Your task to perform on an android device: Go to privacy settings Image 0: 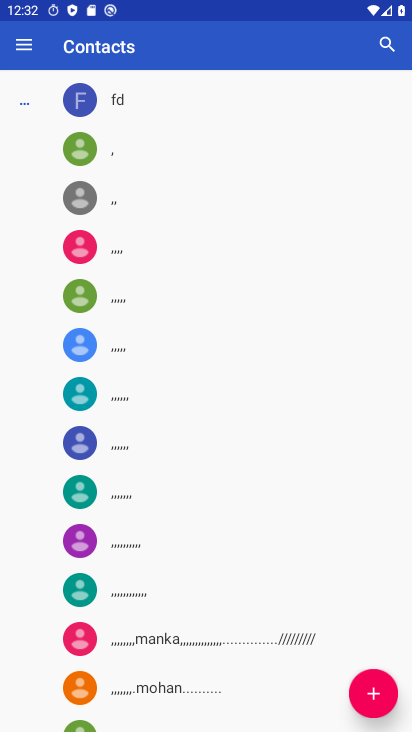
Step 0: press back button
Your task to perform on an android device: Go to privacy settings Image 1: 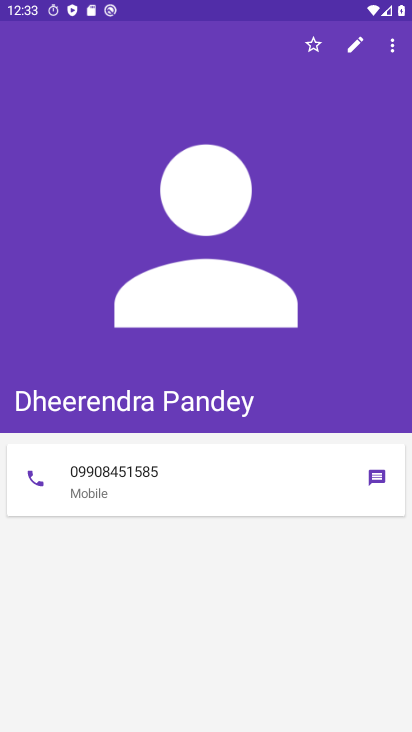
Step 1: press back button
Your task to perform on an android device: Go to privacy settings Image 2: 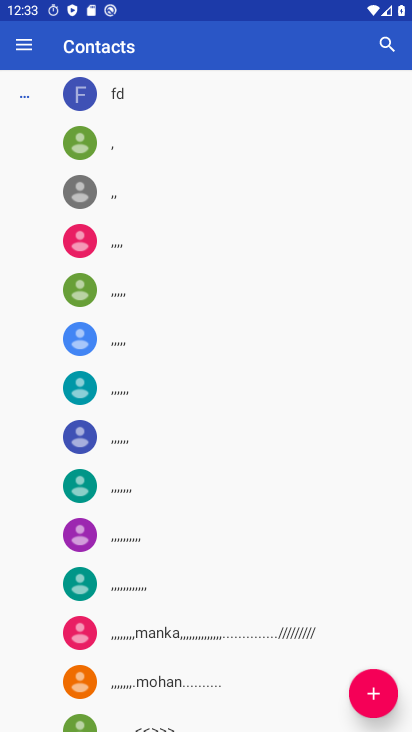
Step 2: press back button
Your task to perform on an android device: Go to privacy settings Image 3: 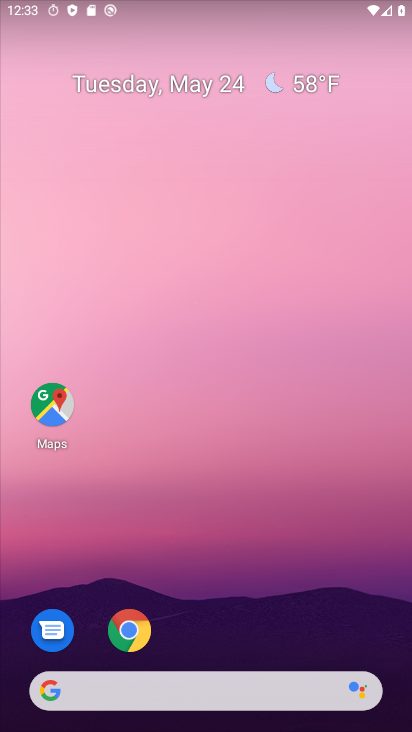
Step 3: drag from (257, 634) to (261, 120)
Your task to perform on an android device: Go to privacy settings Image 4: 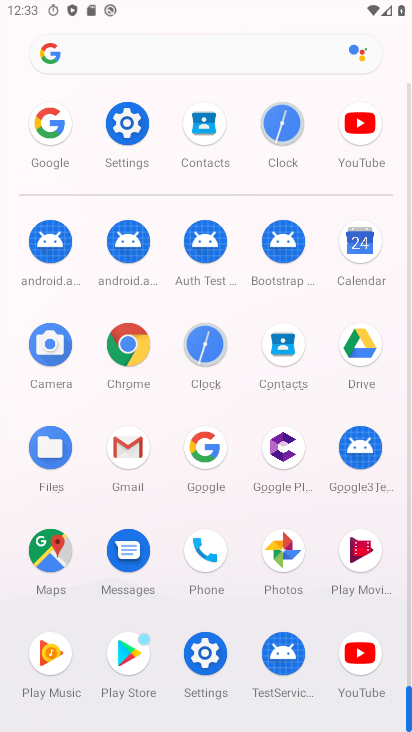
Step 4: click (128, 125)
Your task to perform on an android device: Go to privacy settings Image 5: 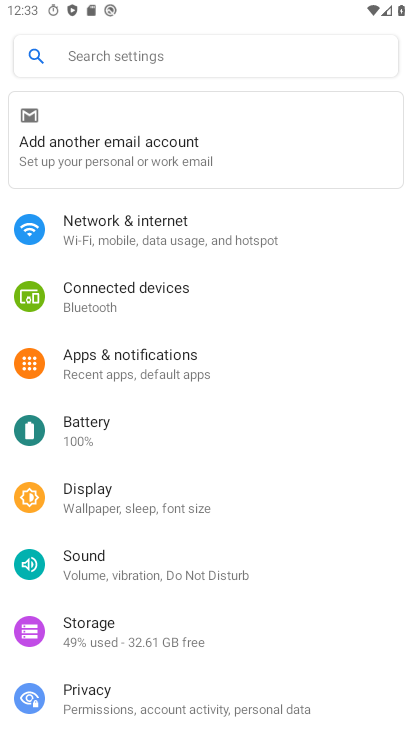
Step 5: drag from (155, 520) to (205, 431)
Your task to perform on an android device: Go to privacy settings Image 6: 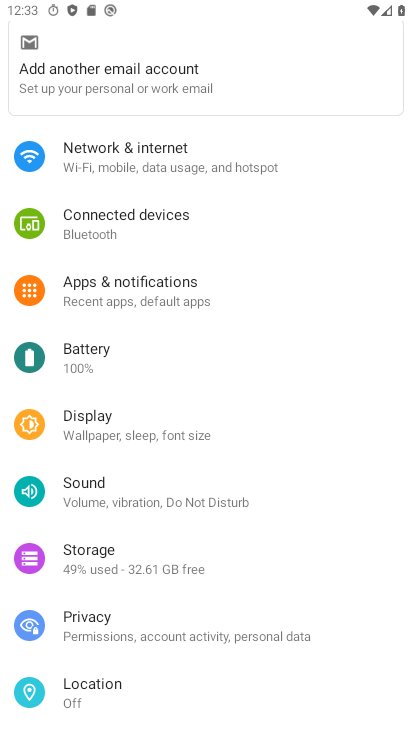
Step 6: click (103, 631)
Your task to perform on an android device: Go to privacy settings Image 7: 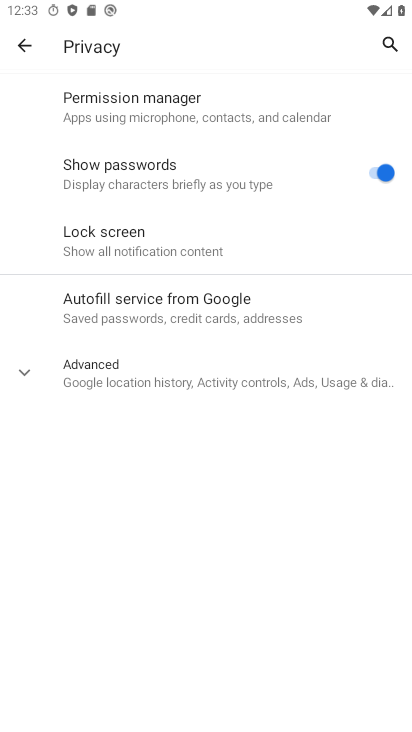
Step 7: task complete